Your task to perform on an android device: Go to Google maps Image 0: 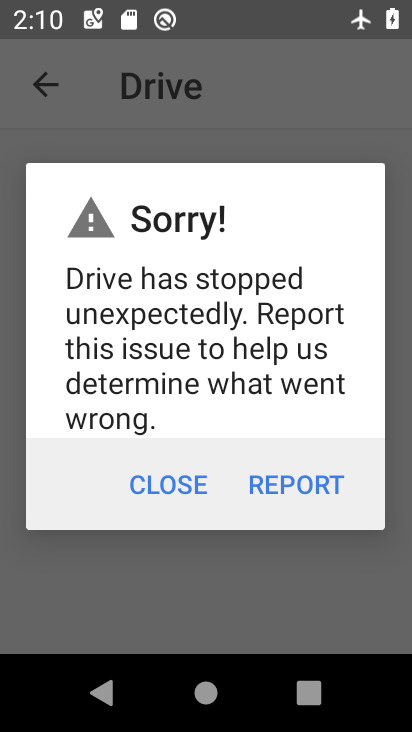
Step 0: press home button
Your task to perform on an android device: Go to Google maps Image 1: 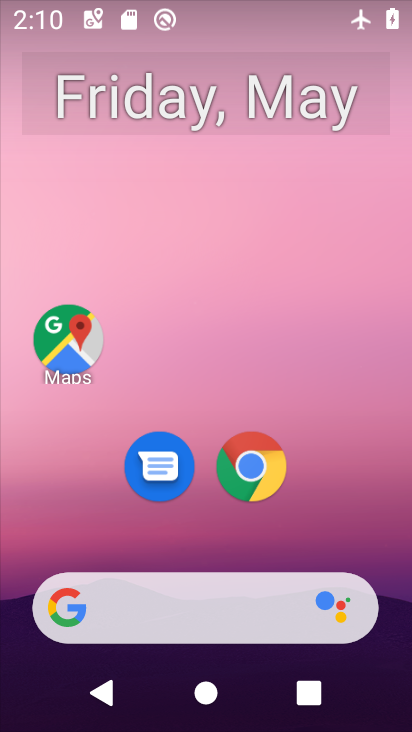
Step 1: drag from (374, 497) to (329, 122)
Your task to perform on an android device: Go to Google maps Image 2: 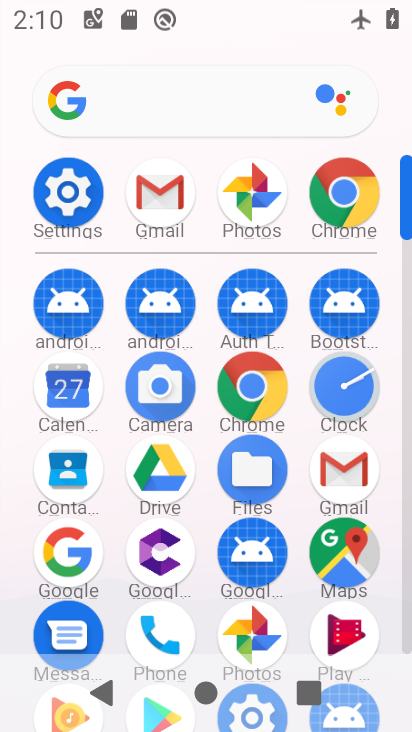
Step 2: drag from (408, 580) to (410, 311)
Your task to perform on an android device: Go to Google maps Image 3: 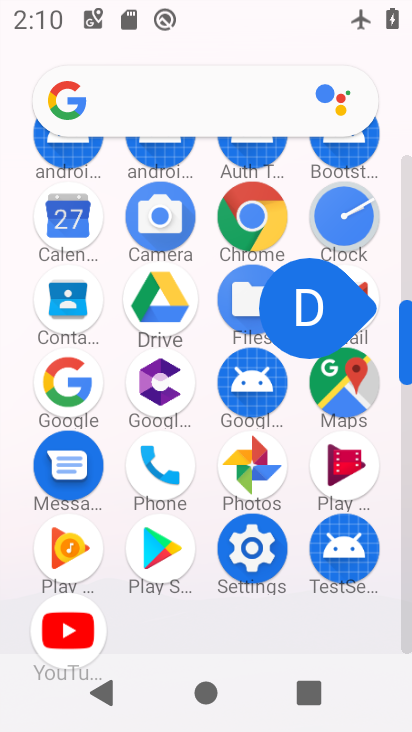
Step 3: click (340, 353)
Your task to perform on an android device: Go to Google maps Image 4: 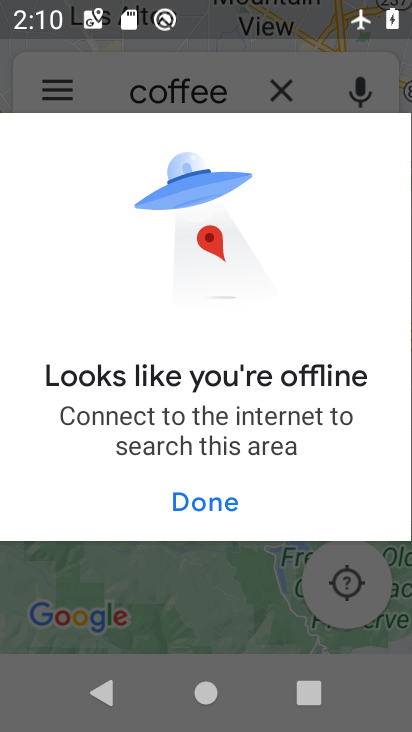
Step 4: task complete